Your task to perform on an android device: When is my next meeting? Image 0: 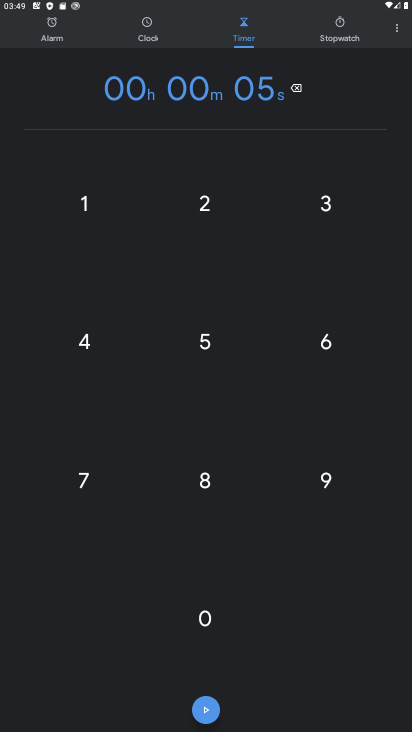
Step 0: press home button
Your task to perform on an android device: When is my next meeting? Image 1: 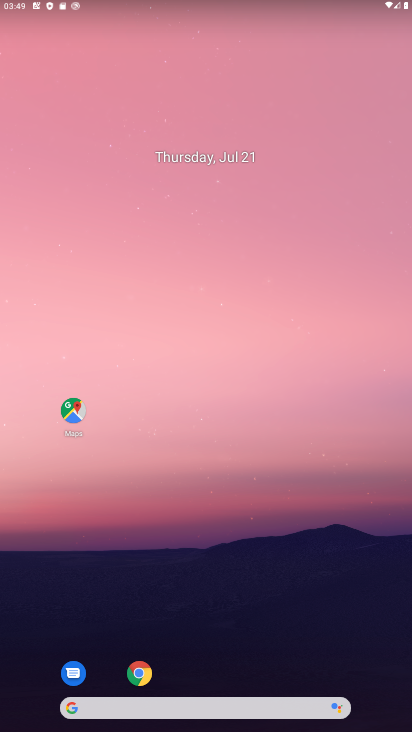
Step 1: drag from (304, 583) to (240, 89)
Your task to perform on an android device: When is my next meeting? Image 2: 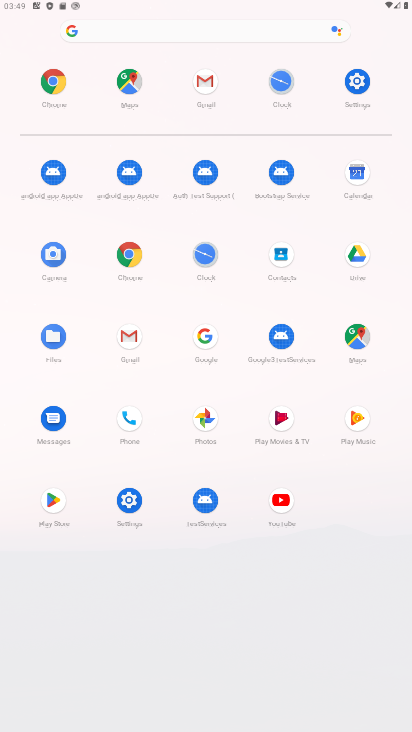
Step 2: click (357, 174)
Your task to perform on an android device: When is my next meeting? Image 3: 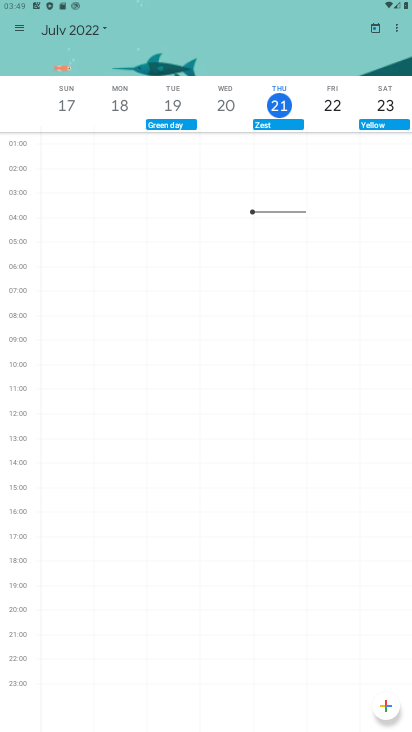
Step 3: click (73, 32)
Your task to perform on an android device: When is my next meeting? Image 4: 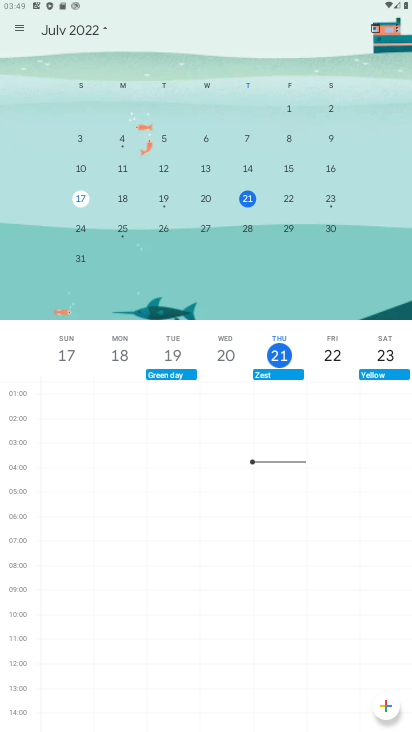
Step 4: click (250, 198)
Your task to perform on an android device: When is my next meeting? Image 5: 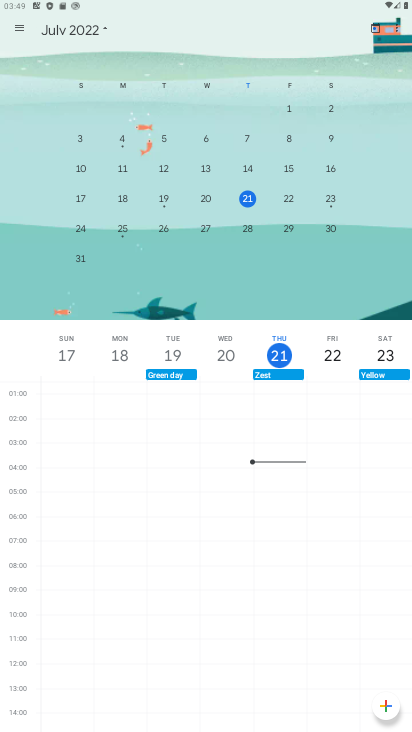
Step 5: task complete